Your task to perform on an android device: Open the stopwatch Image 0: 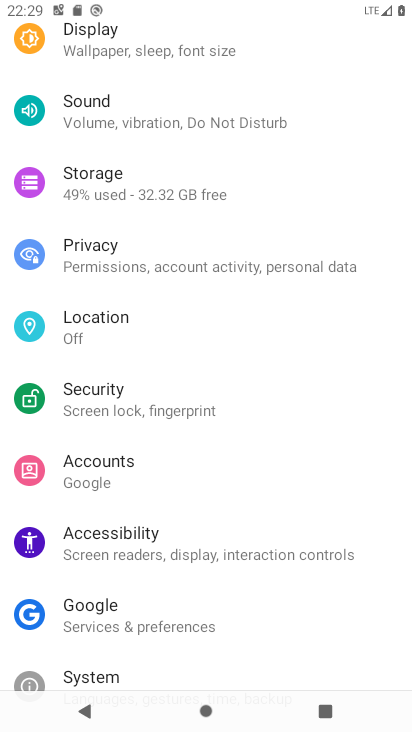
Step 0: press home button
Your task to perform on an android device: Open the stopwatch Image 1: 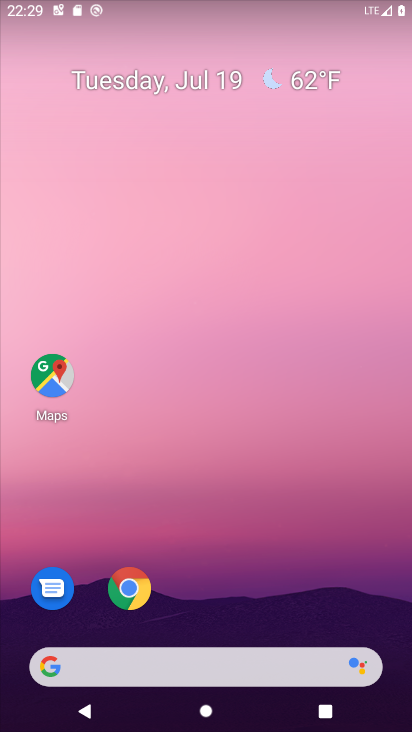
Step 1: drag from (271, 510) to (271, 171)
Your task to perform on an android device: Open the stopwatch Image 2: 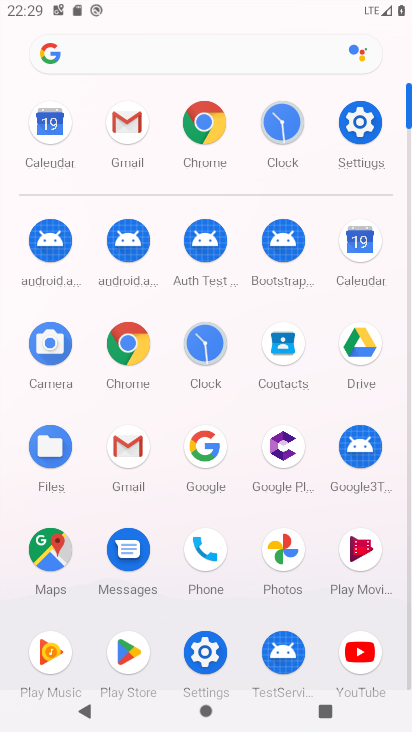
Step 2: click (279, 137)
Your task to perform on an android device: Open the stopwatch Image 3: 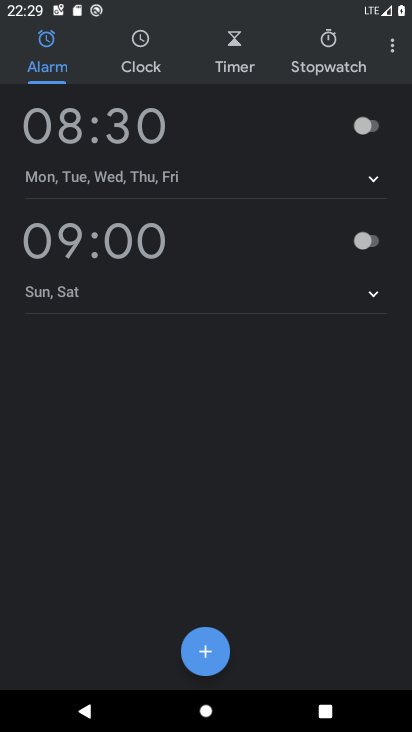
Step 3: click (333, 68)
Your task to perform on an android device: Open the stopwatch Image 4: 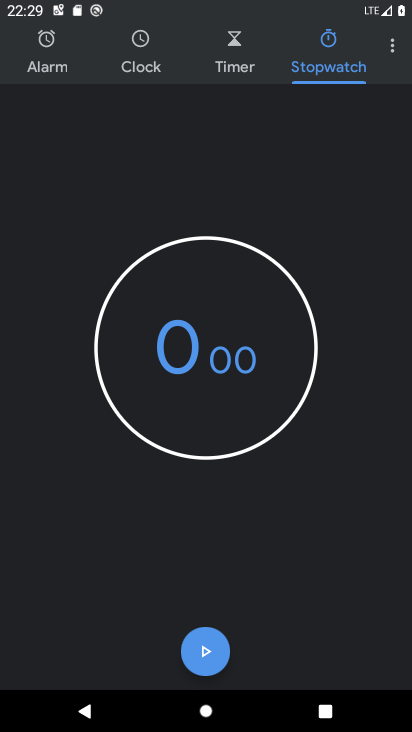
Step 4: task complete